Your task to perform on an android device: Open eBay Image 0: 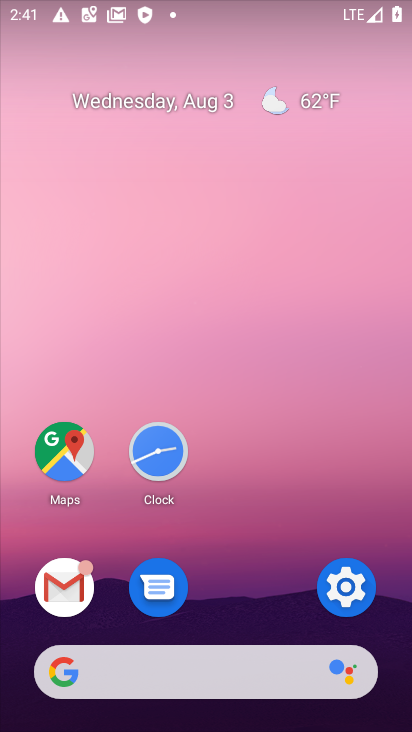
Step 0: drag from (227, 577) to (168, 131)
Your task to perform on an android device: Open eBay Image 1: 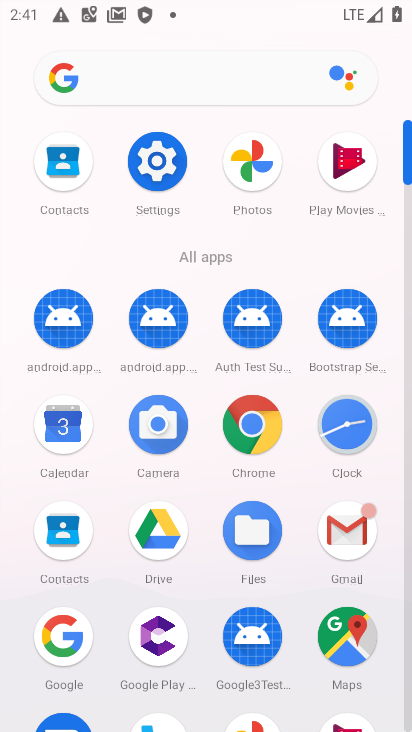
Step 1: click (256, 424)
Your task to perform on an android device: Open eBay Image 2: 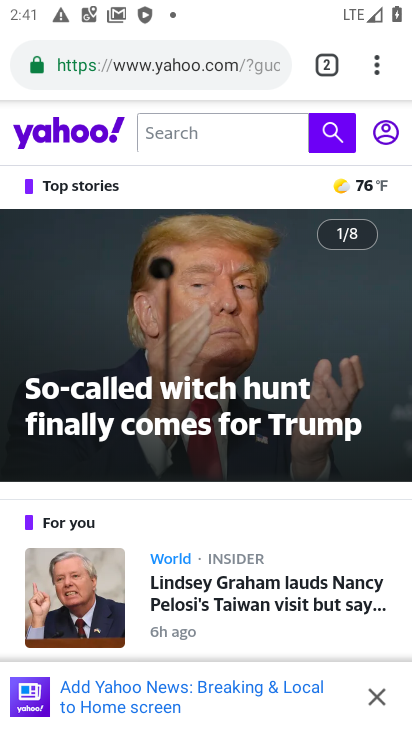
Step 2: click (374, 65)
Your task to perform on an android device: Open eBay Image 3: 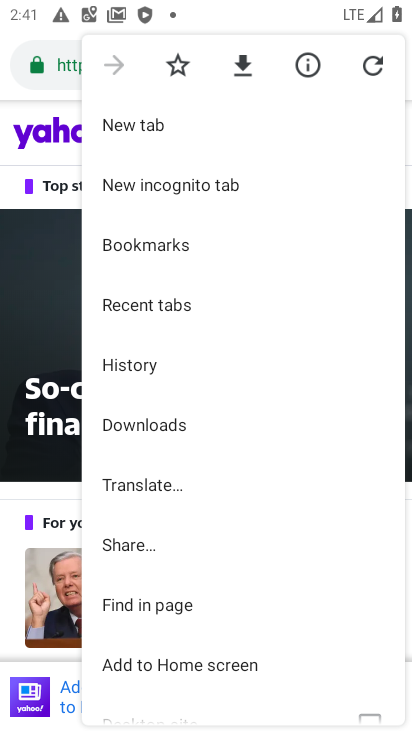
Step 3: click (152, 115)
Your task to perform on an android device: Open eBay Image 4: 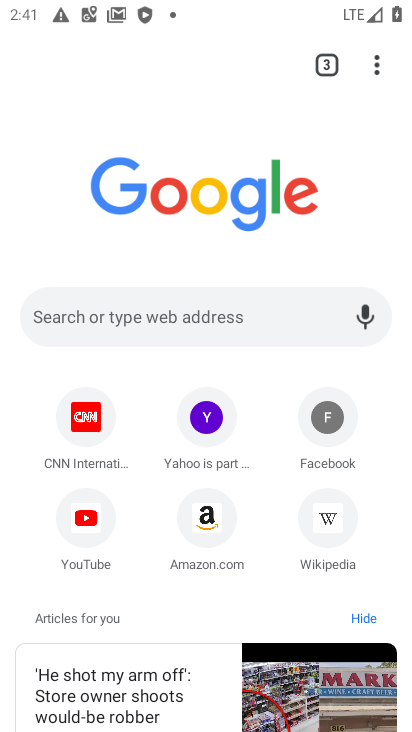
Step 4: click (166, 312)
Your task to perform on an android device: Open eBay Image 5: 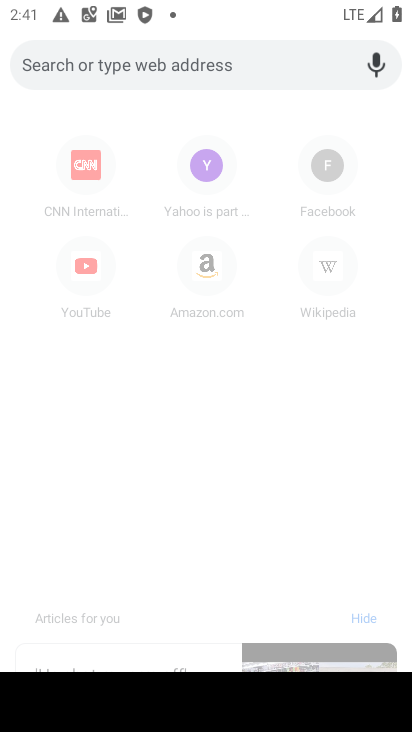
Step 5: type "ebay"
Your task to perform on an android device: Open eBay Image 6: 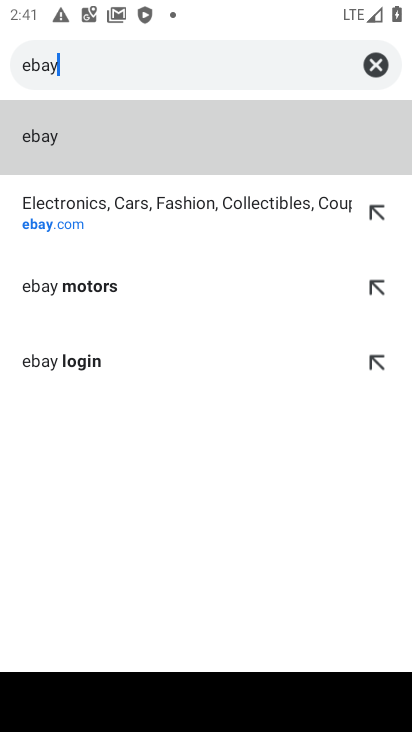
Step 6: click (48, 128)
Your task to perform on an android device: Open eBay Image 7: 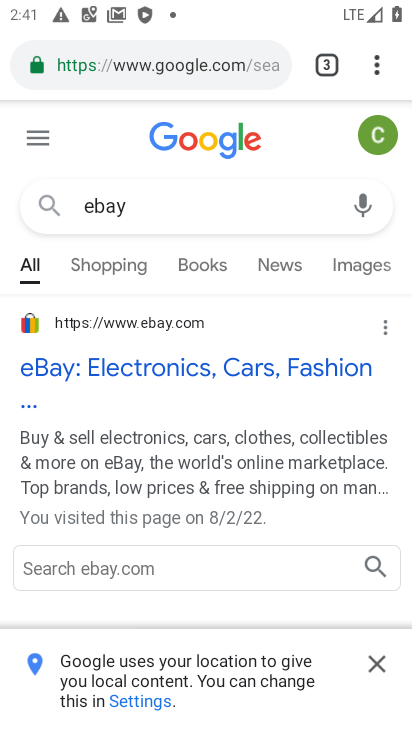
Step 7: click (147, 374)
Your task to perform on an android device: Open eBay Image 8: 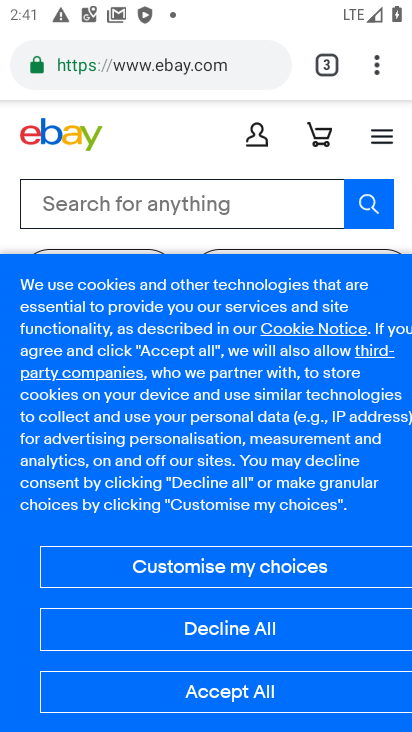
Step 8: click (263, 234)
Your task to perform on an android device: Open eBay Image 9: 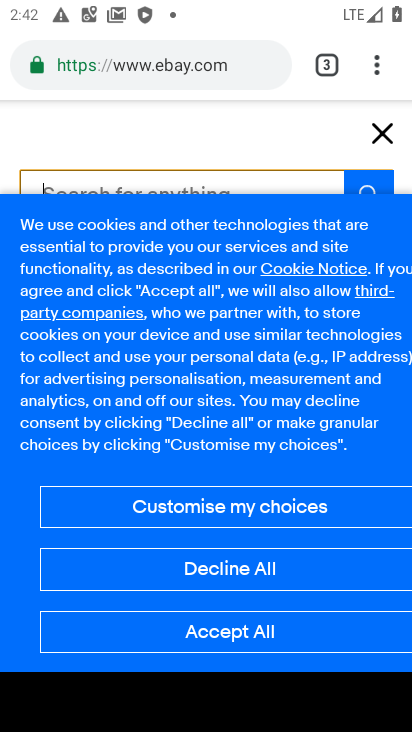
Step 9: click (281, 143)
Your task to perform on an android device: Open eBay Image 10: 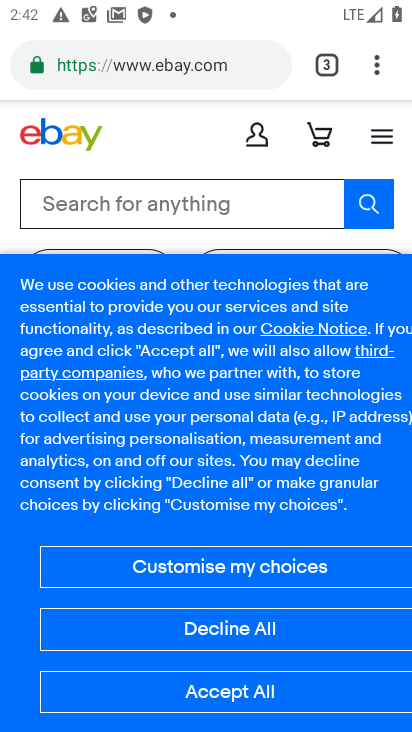
Step 10: click (248, 695)
Your task to perform on an android device: Open eBay Image 11: 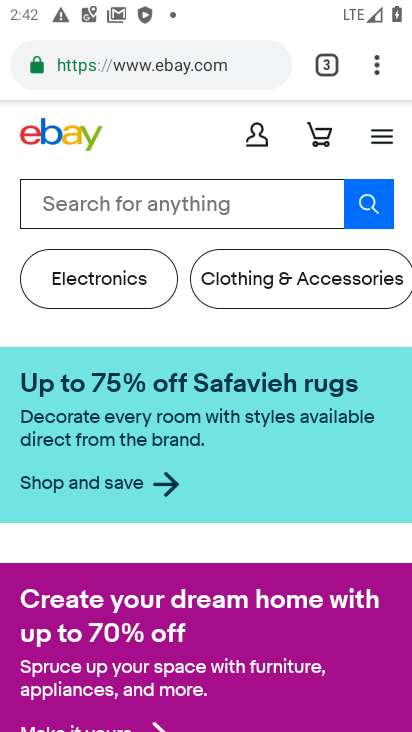
Step 11: task complete